Your task to perform on an android device: Go to settings Image 0: 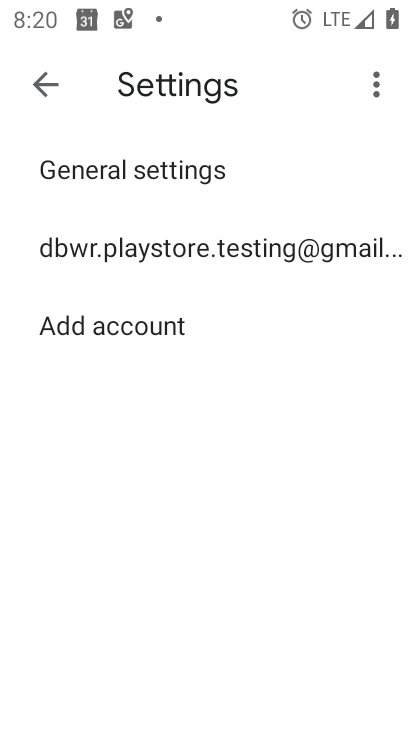
Step 0: press home button
Your task to perform on an android device: Go to settings Image 1: 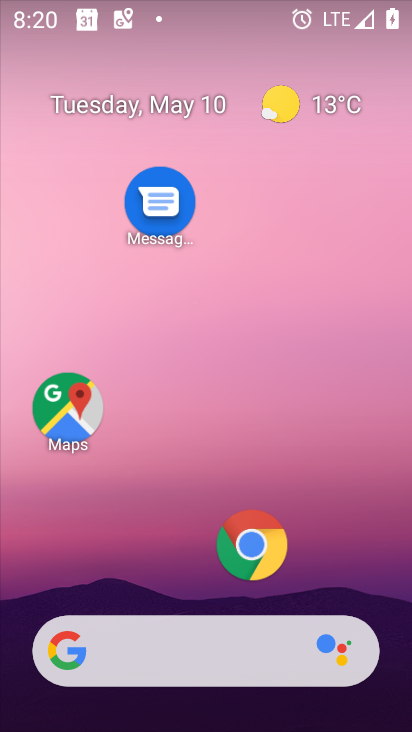
Step 1: drag from (202, 596) to (192, 75)
Your task to perform on an android device: Go to settings Image 2: 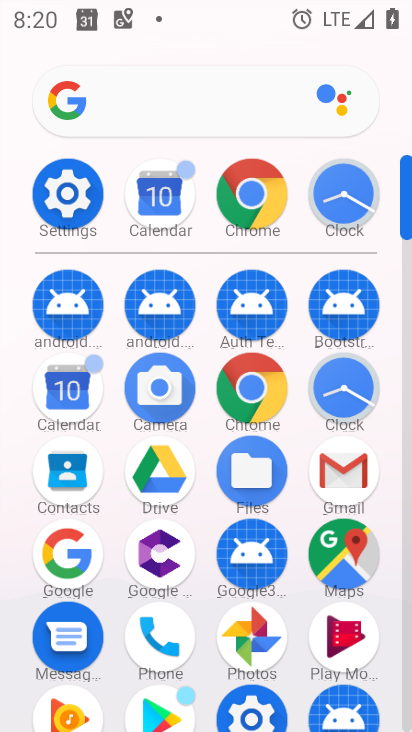
Step 2: click (75, 188)
Your task to perform on an android device: Go to settings Image 3: 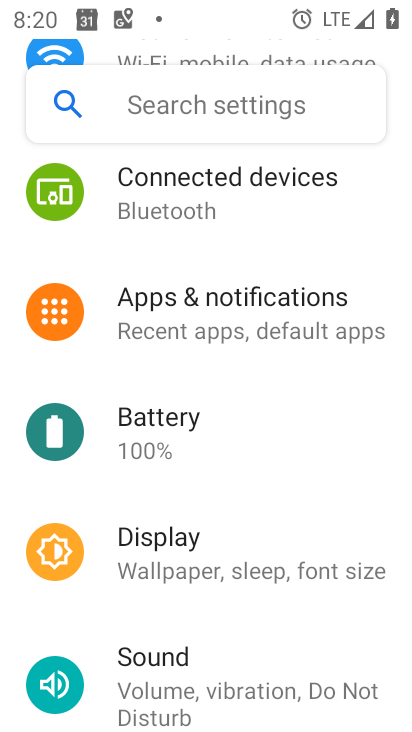
Step 3: task complete